Your task to perform on an android device: change notifications settings Image 0: 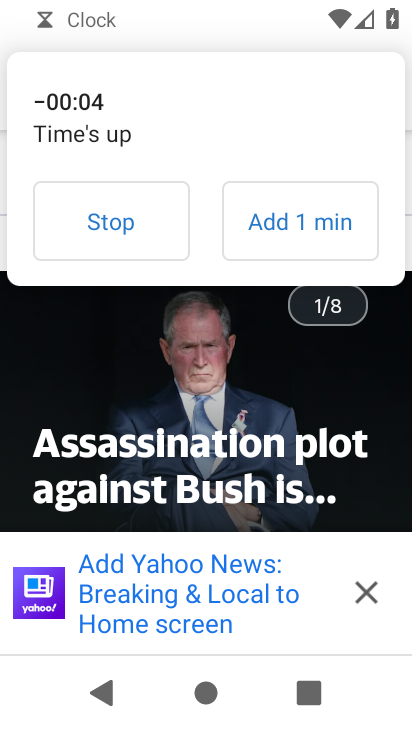
Step 0: click (115, 205)
Your task to perform on an android device: change notifications settings Image 1: 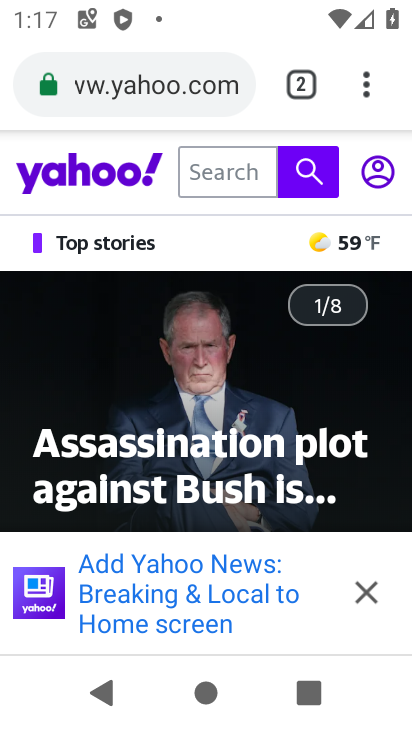
Step 1: press home button
Your task to perform on an android device: change notifications settings Image 2: 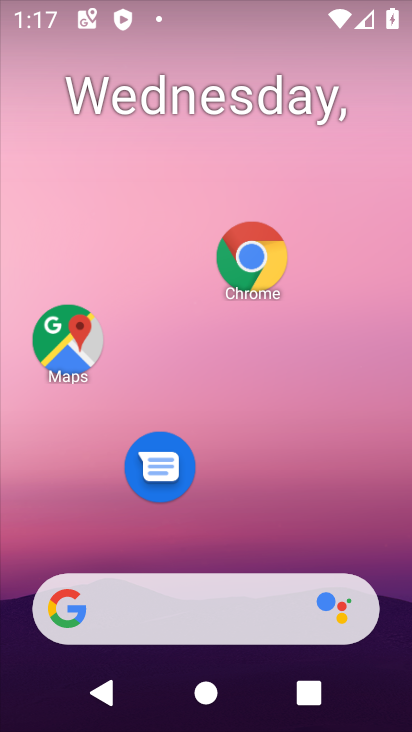
Step 2: drag from (361, 531) to (277, 190)
Your task to perform on an android device: change notifications settings Image 3: 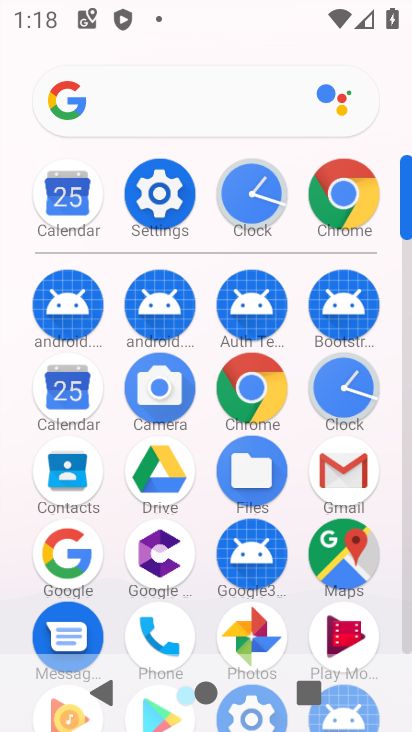
Step 3: click (170, 195)
Your task to perform on an android device: change notifications settings Image 4: 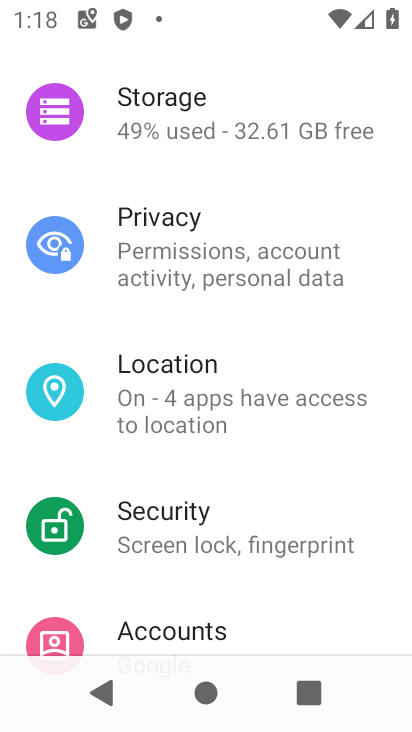
Step 4: drag from (219, 309) to (182, 551)
Your task to perform on an android device: change notifications settings Image 5: 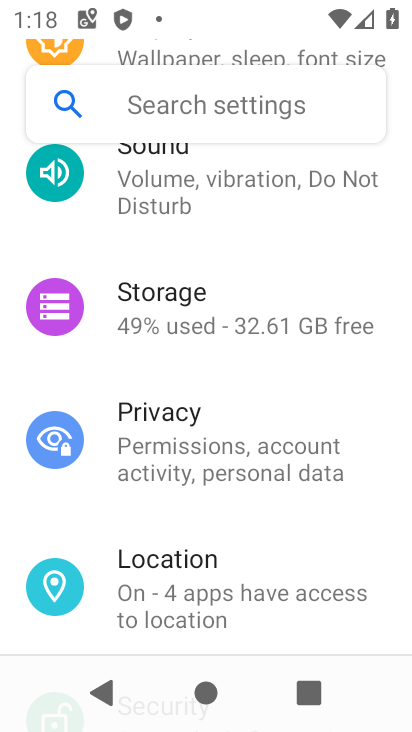
Step 5: drag from (196, 225) to (105, 637)
Your task to perform on an android device: change notifications settings Image 6: 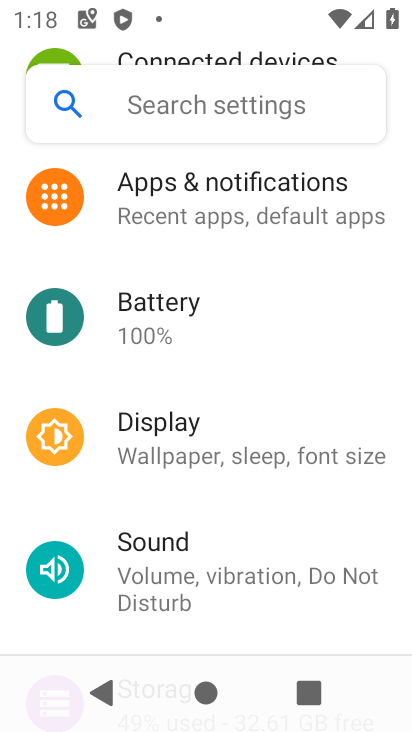
Step 6: click (210, 204)
Your task to perform on an android device: change notifications settings Image 7: 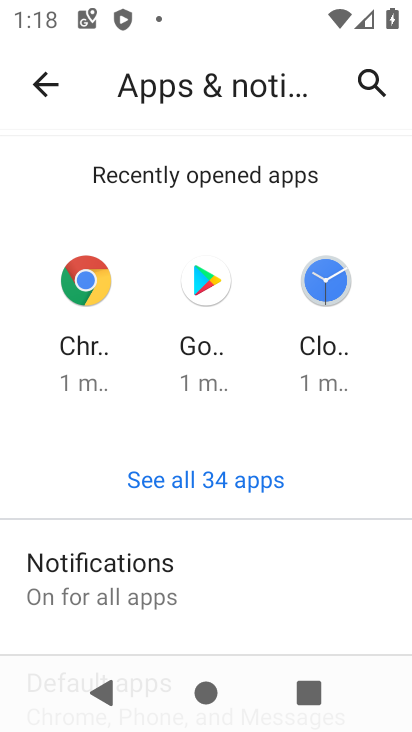
Step 7: click (60, 580)
Your task to perform on an android device: change notifications settings Image 8: 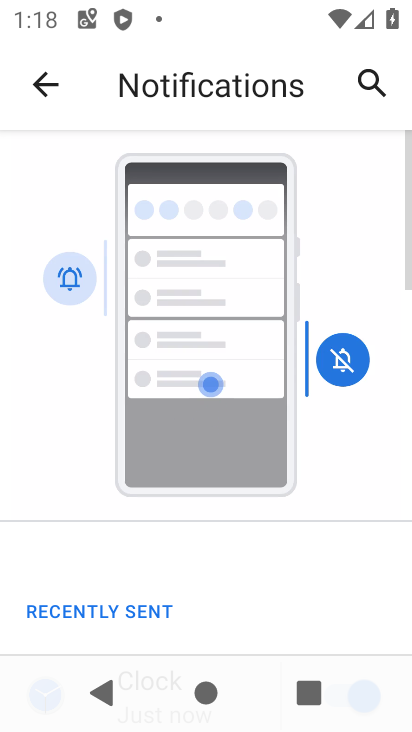
Step 8: task complete